Your task to perform on an android device: check google app version Image 0: 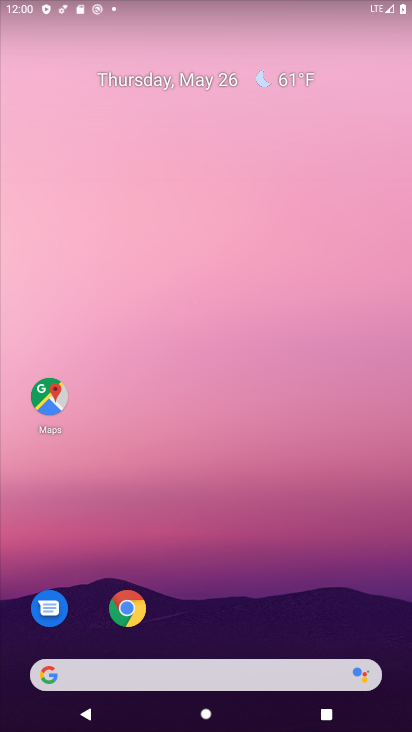
Step 0: click (129, 607)
Your task to perform on an android device: check google app version Image 1: 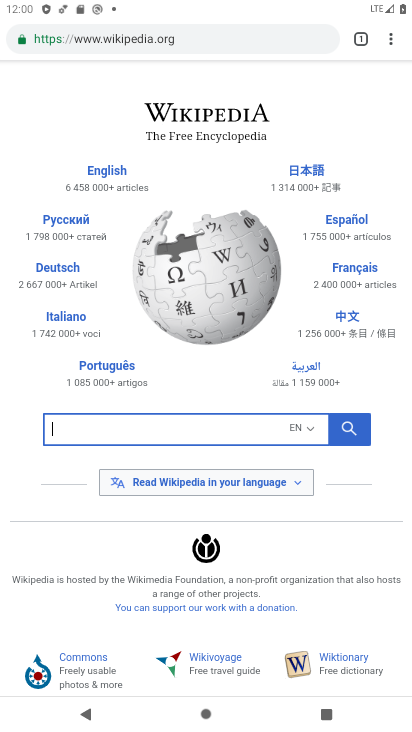
Step 1: click (387, 40)
Your task to perform on an android device: check google app version Image 2: 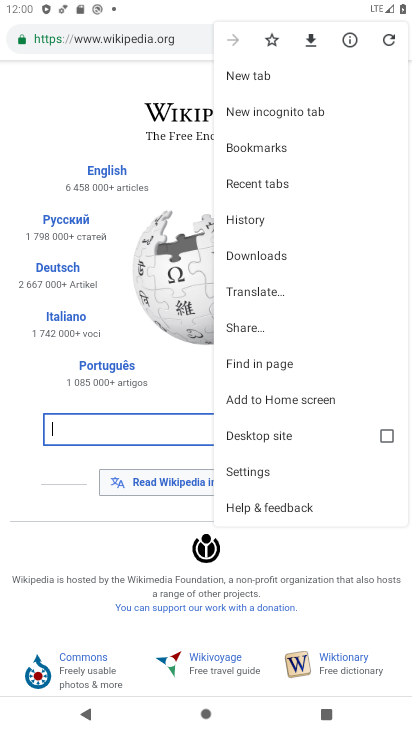
Step 2: click (254, 463)
Your task to perform on an android device: check google app version Image 3: 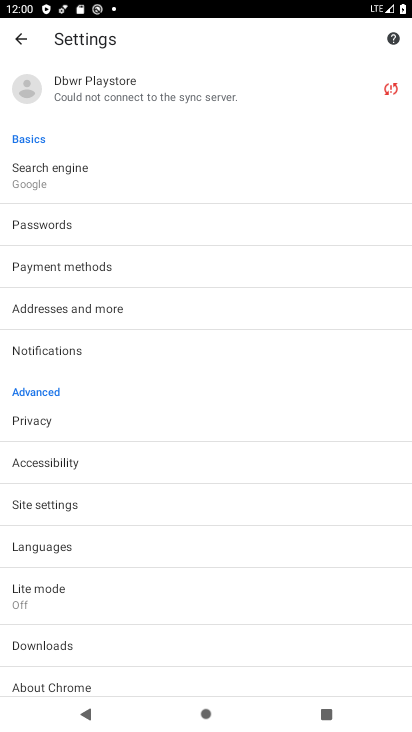
Step 3: drag from (137, 619) to (164, 389)
Your task to perform on an android device: check google app version Image 4: 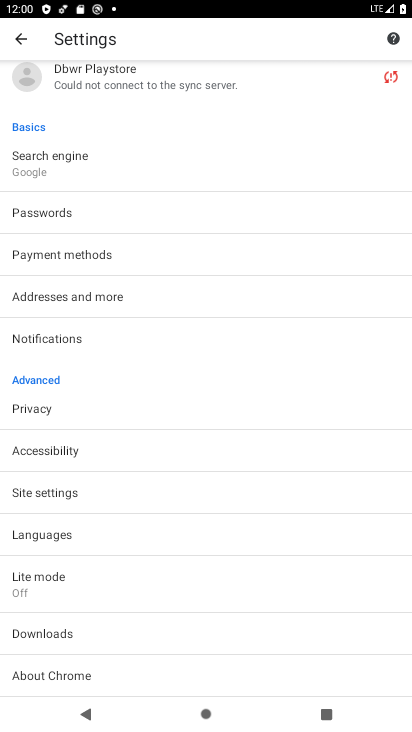
Step 4: click (71, 667)
Your task to perform on an android device: check google app version Image 5: 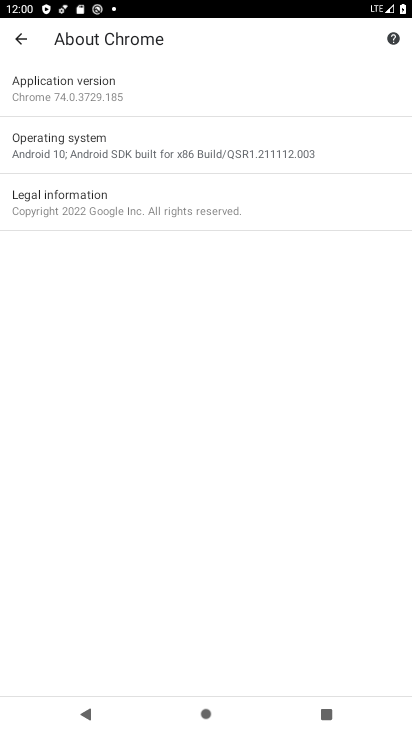
Step 5: click (60, 97)
Your task to perform on an android device: check google app version Image 6: 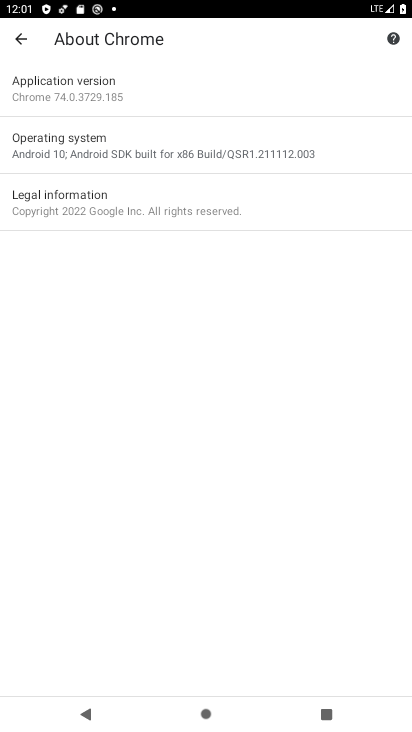
Step 6: task complete